Your task to perform on an android device: Search for "macbook" on costco, select the first entry, and add it to the cart. Image 0: 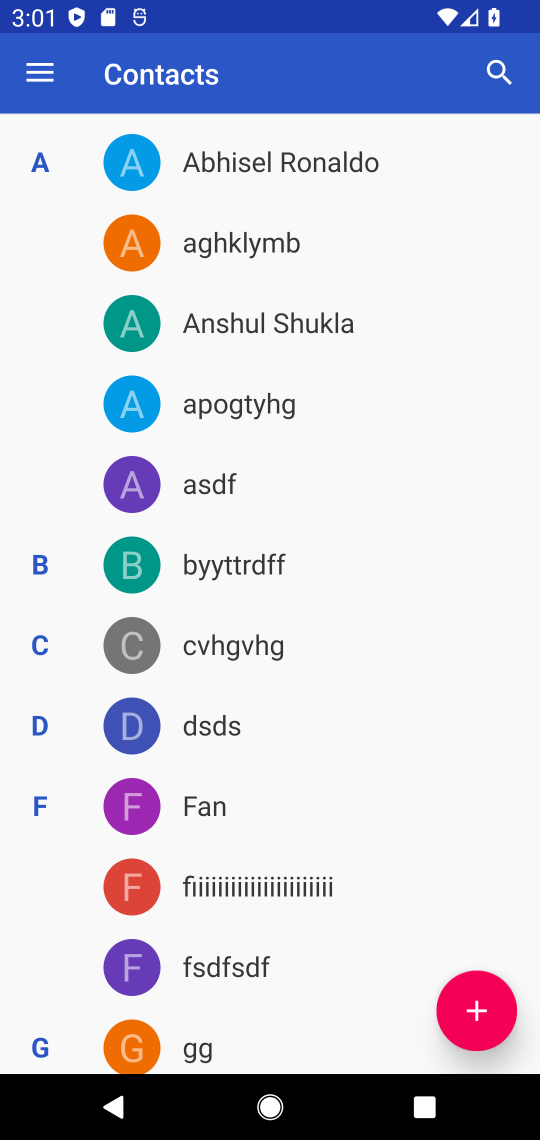
Step 0: press home button
Your task to perform on an android device: Search for "macbook" on costco, select the first entry, and add it to the cart. Image 1: 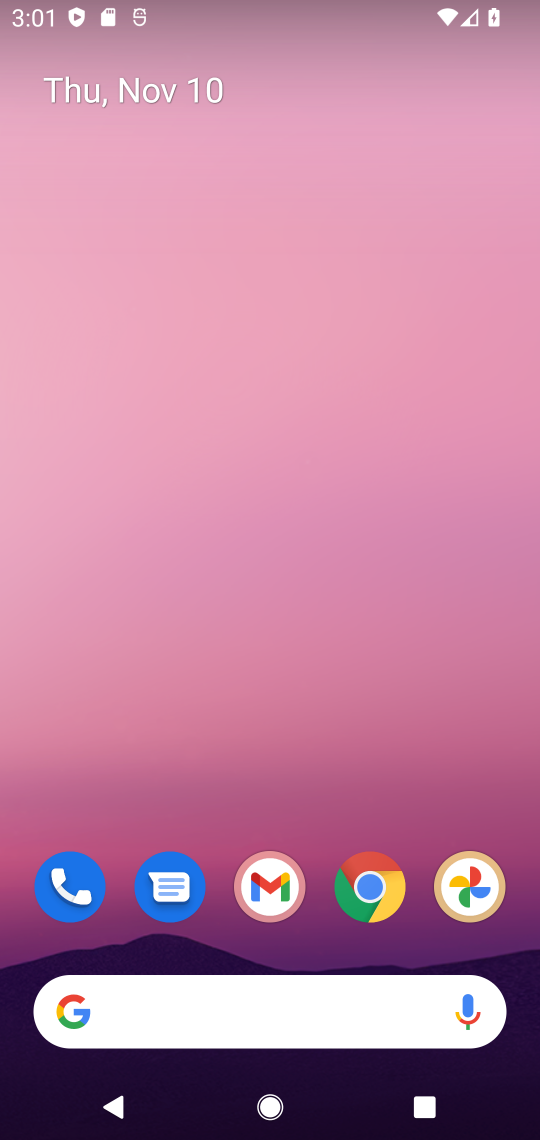
Step 1: drag from (311, 940) to (361, 18)
Your task to perform on an android device: Search for "macbook" on costco, select the first entry, and add it to the cart. Image 2: 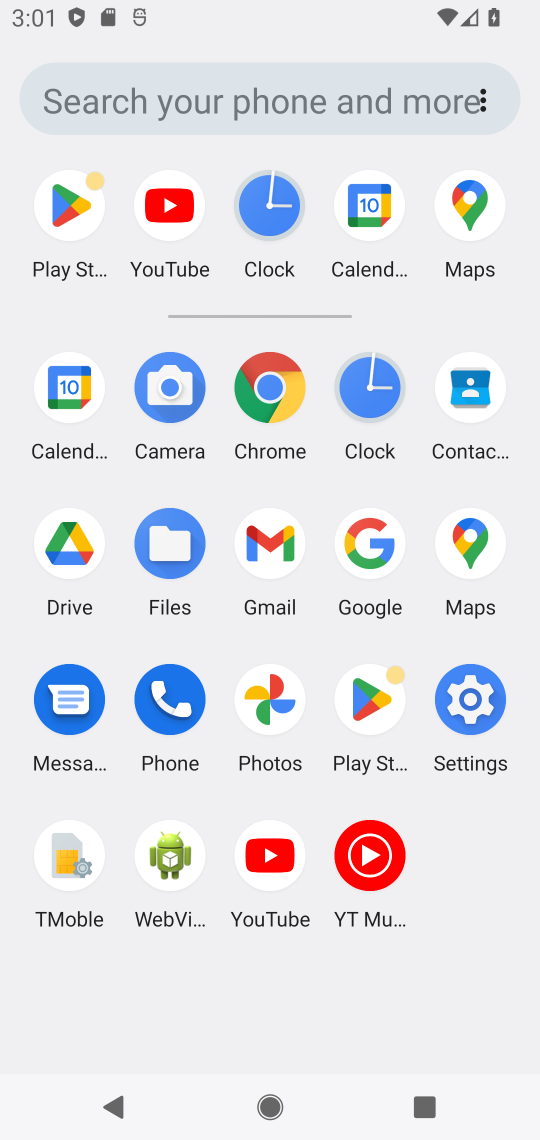
Step 2: click (282, 389)
Your task to perform on an android device: Search for "macbook" on costco, select the first entry, and add it to the cart. Image 3: 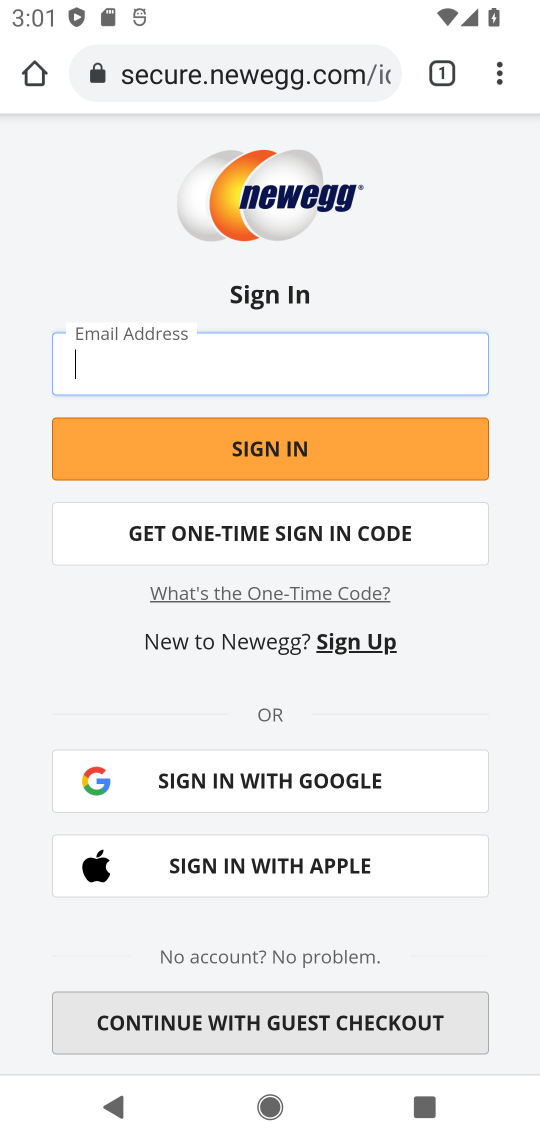
Step 3: click (334, 82)
Your task to perform on an android device: Search for "macbook" on costco, select the first entry, and add it to the cart. Image 4: 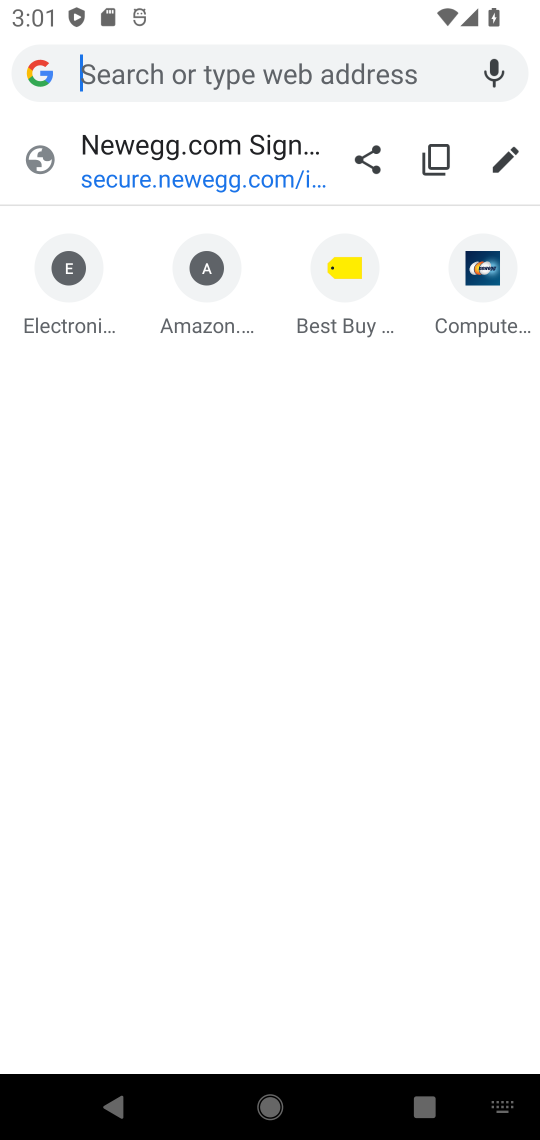
Step 4: type "costco.com"
Your task to perform on an android device: Search for "macbook" on costco, select the first entry, and add it to the cart. Image 5: 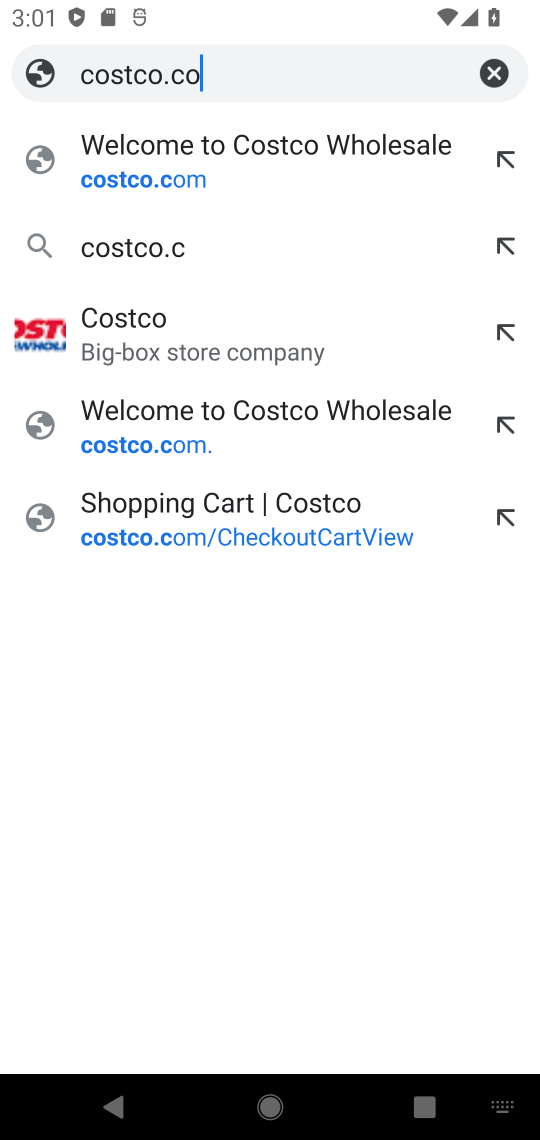
Step 5: press enter
Your task to perform on an android device: Search for "macbook" on costco, select the first entry, and add it to the cart. Image 6: 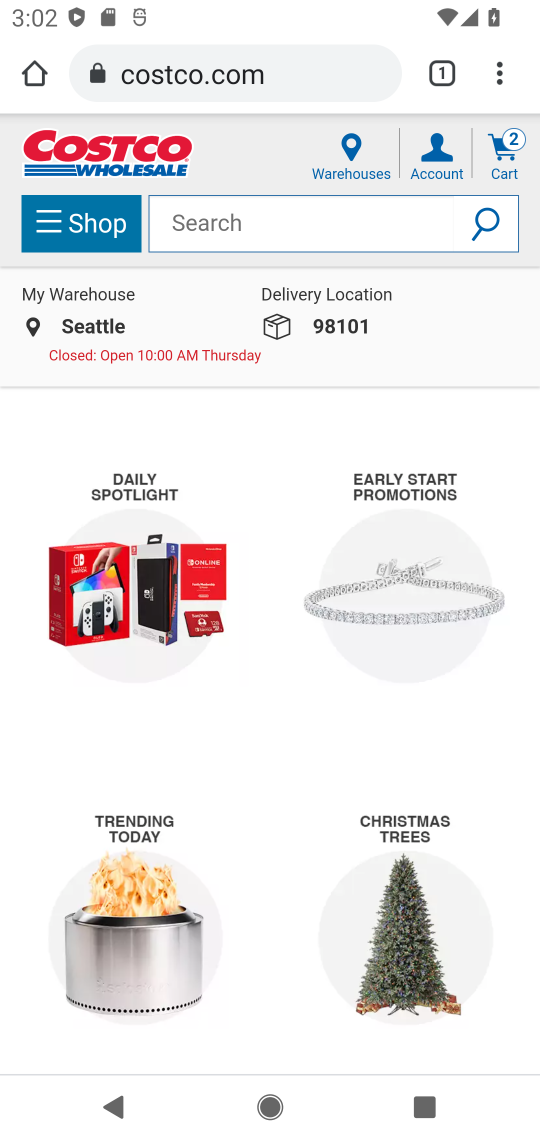
Step 6: click (266, 212)
Your task to perform on an android device: Search for "macbook" on costco, select the first entry, and add it to the cart. Image 7: 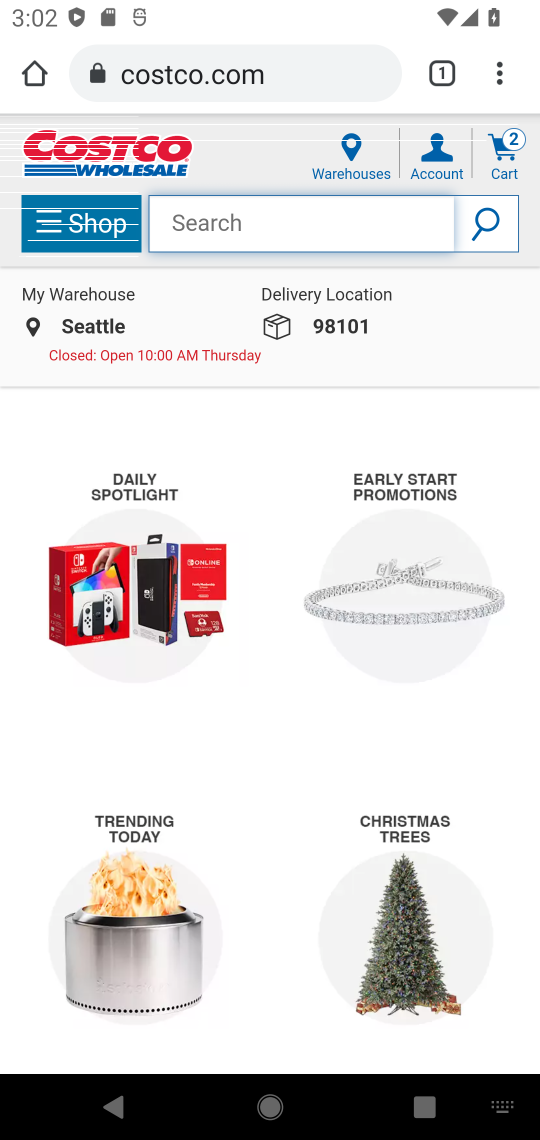
Step 7: type "macbook"
Your task to perform on an android device: Search for "macbook" on costco, select the first entry, and add it to the cart. Image 8: 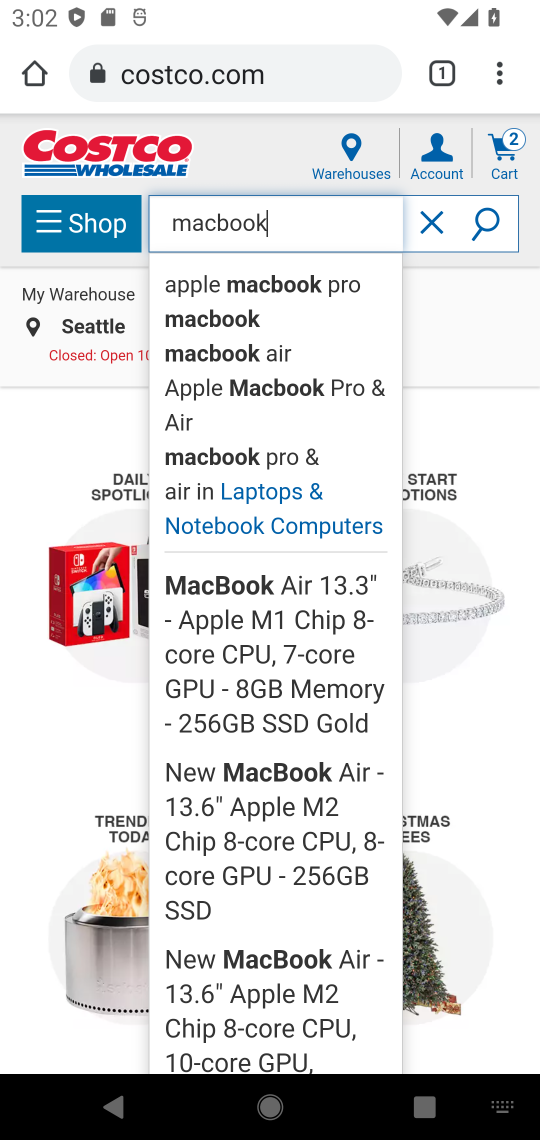
Step 8: press enter
Your task to perform on an android device: Search for "macbook" on costco, select the first entry, and add it to the cart. Image 9: 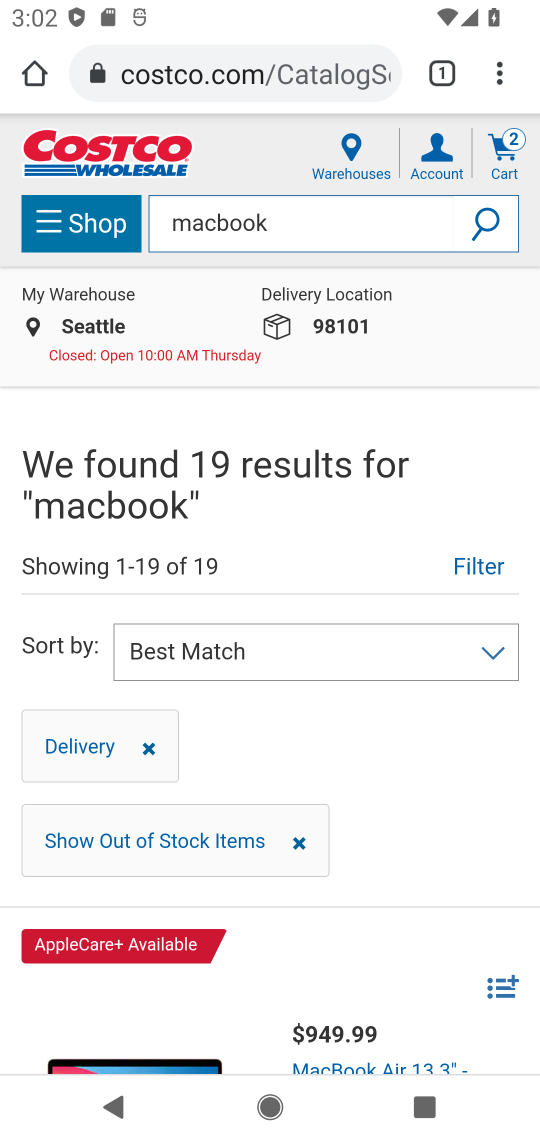
Step 9: drag from (320, 914) to (255, 292)
Your task to perform on an android device: Search for "macbook" on costco, select the first entry, and add it to the cart. Image 10: 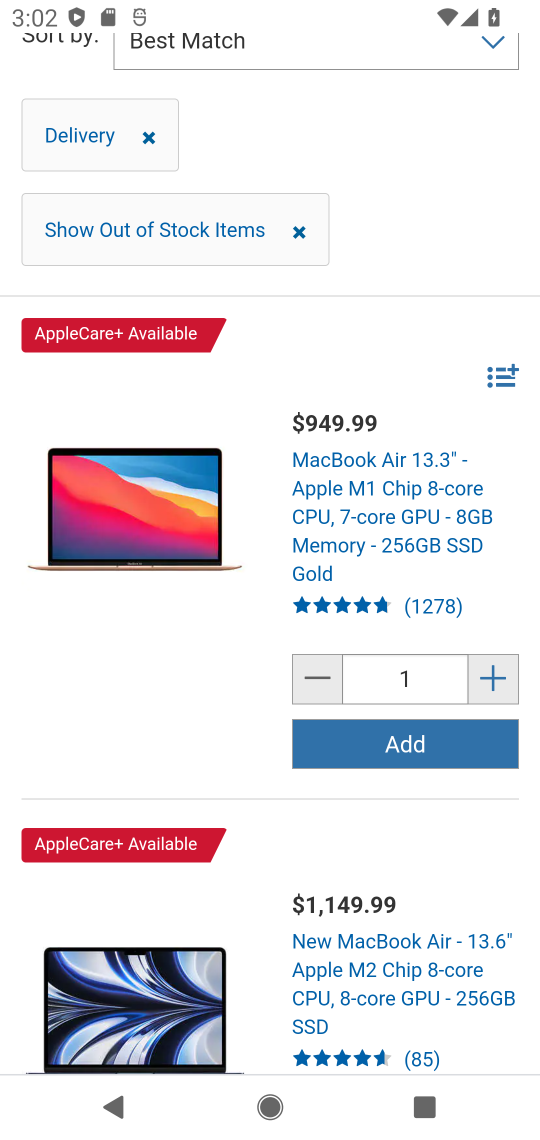
Step 10: click (409, 748)
Your task to perform on an android device: Search for "macbook" on costco, select the first entry, and add it to the cart. Image 11: 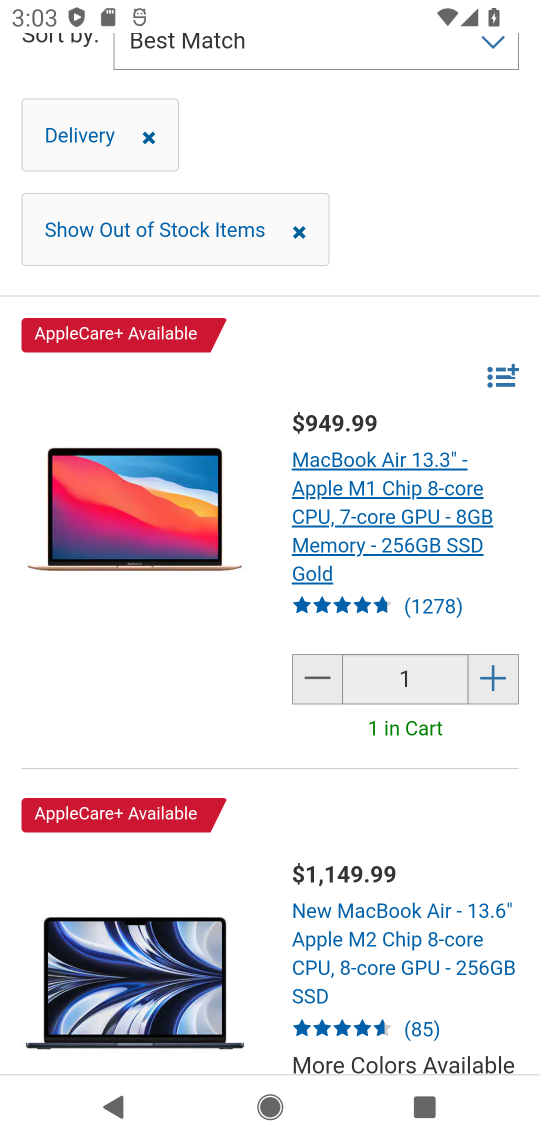
Step 11: task complete